Your task to perform on an android device: turn on bluetooth scan Image 0: 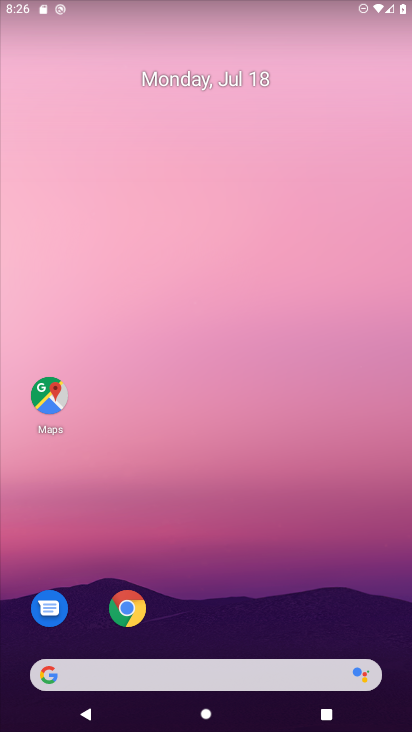
Step 0: drag from (251, 616) to (266, 93)
Your task to perform on an android device: turn on bluetooth scan Image 1: 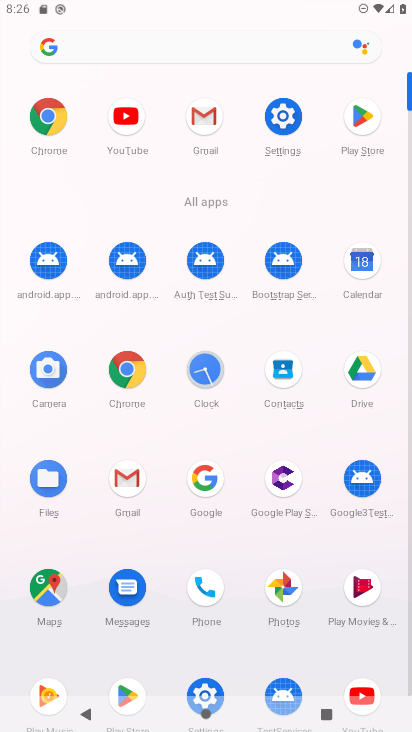
Step 1: click (279, 117)
Your task to perform on an android device: turn on bluetooth scan Image 2: 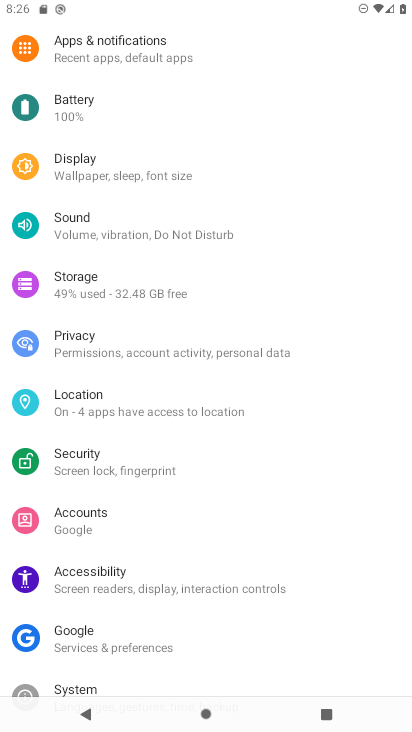
Step 2: click (111, 403)
Your task to perform on an android device: turn on bluetooth scan Image 3: 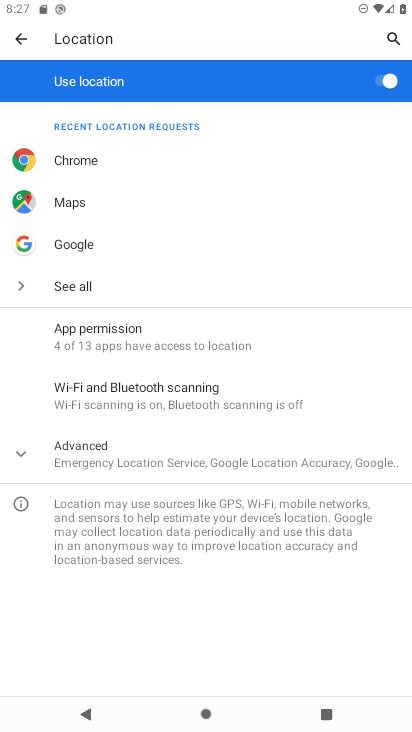
Step 3: click (119, 401)
Your task to perform on an android device: turn on bluetooth scan Image 4: 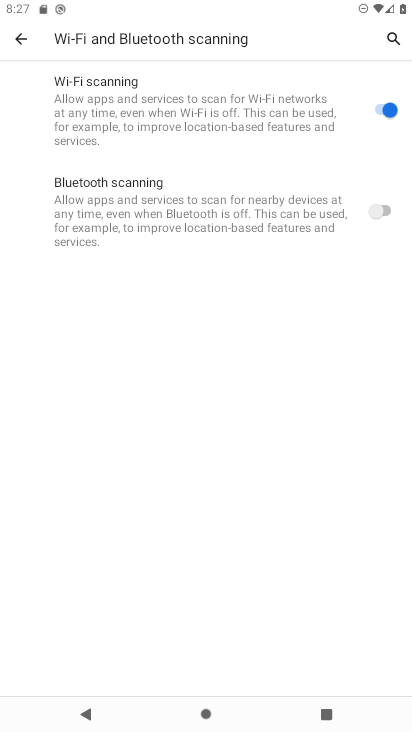
Step 4: click (381, 217)
Your task to perform on an android device: turn on bluetooth scan Image 5: 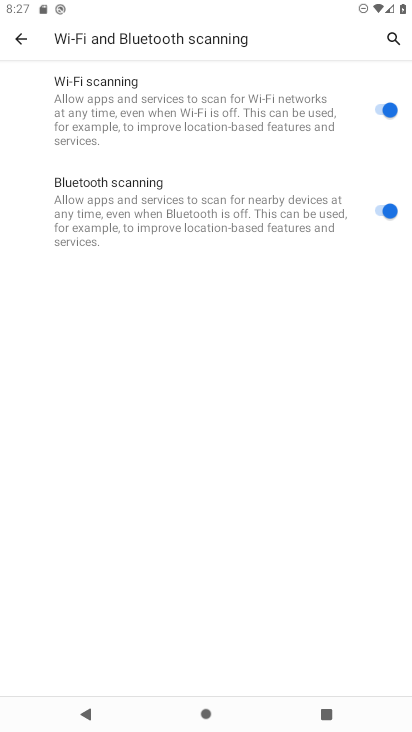
Step 5: task complete